Your task to perform on an android device: View the shopping cart on bestbuy.com. Add dell alienware to the cart on bestbuy.com, then select checkout. Image 0: 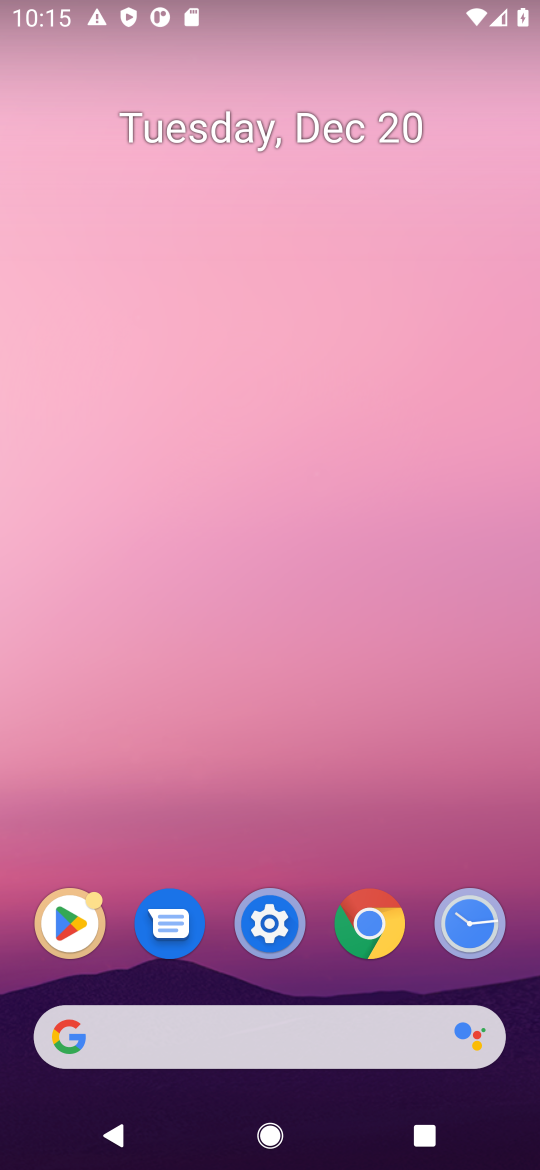
Step 0: click (348, 905)
Your task to perform on an android device: View the shopping cart on bestbuy.com. Add dell alienware to the cart on bestbuy.com, then select checkout. Image 1: 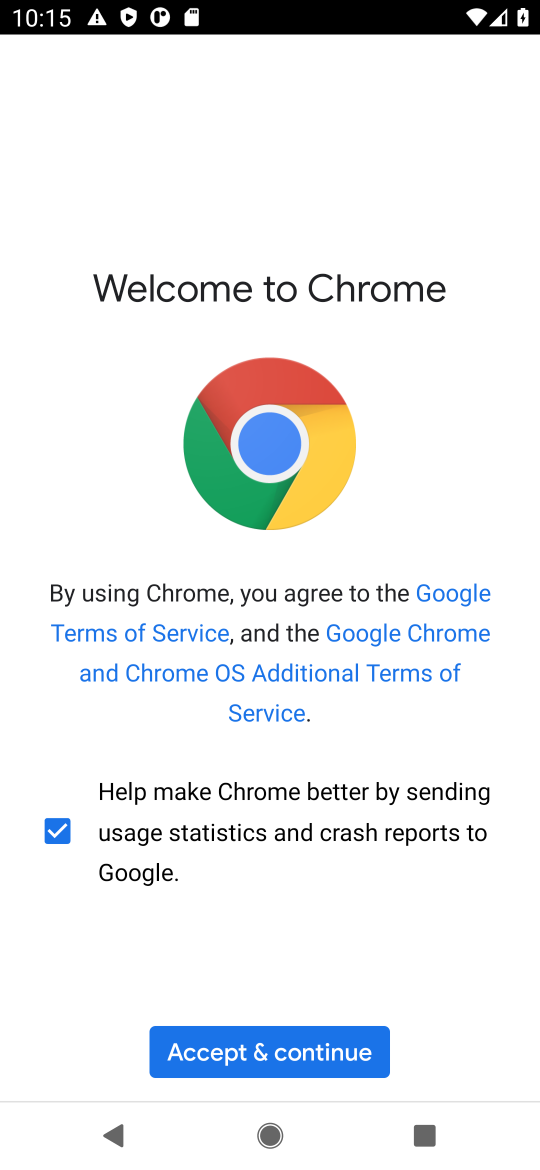
Step 1: click (173, 1060)
Your task to perform on an android device: View the shopping cart on bestbuy.com. Add dell alienware to the cart on bestbuy.com, then select checkout. Image 2: 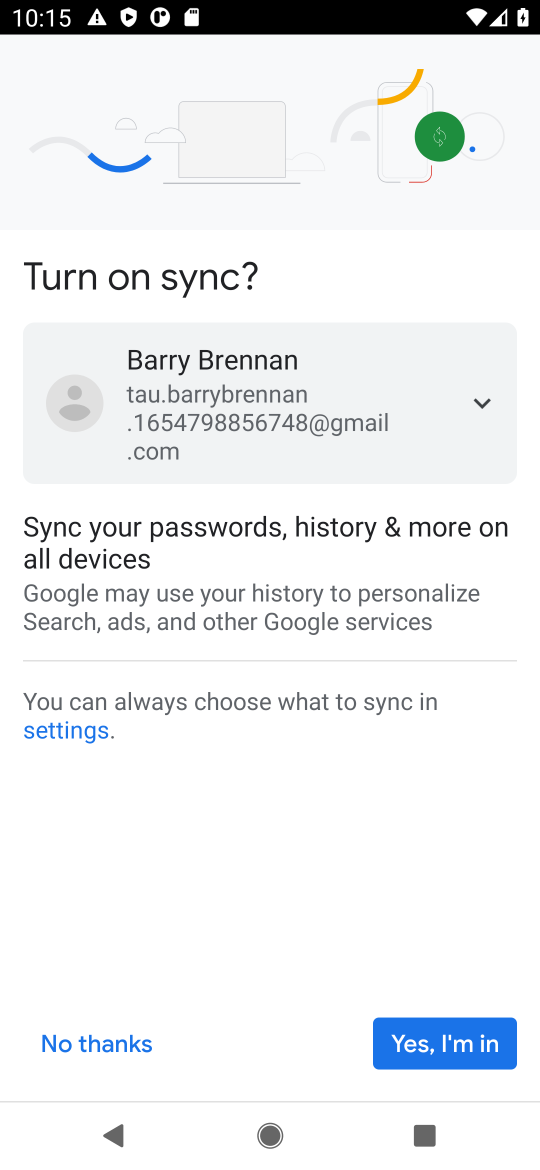
Step 2: click (390, 1056)
Your task to perform on an android device: View the shopping cart on bestbuy.com. Add dell alienware to the cart on bestbuy.com, then select checkout. Image 3: 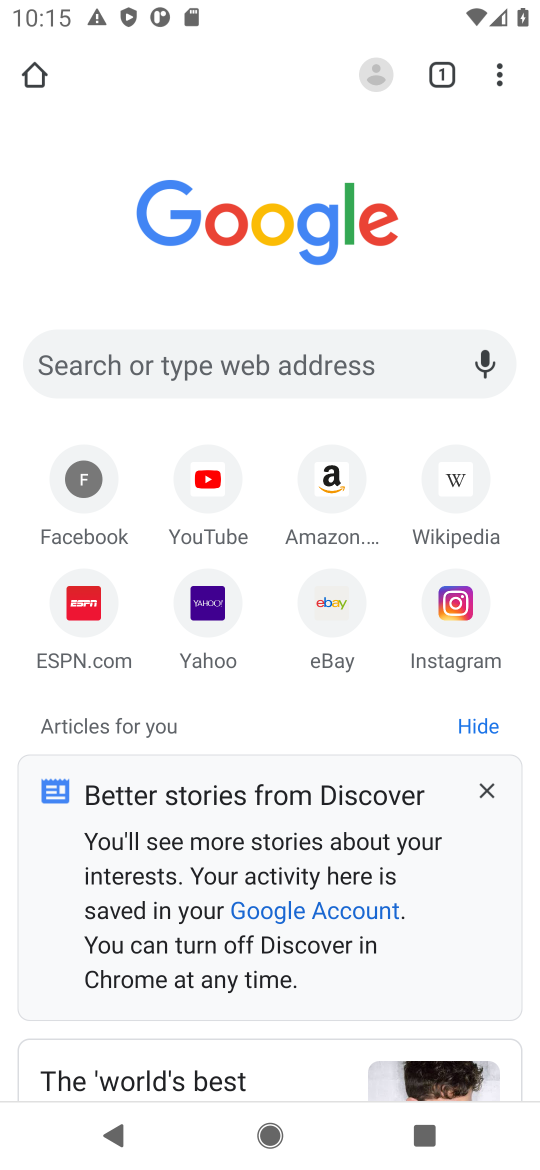
Step 3: click (248, 369)
Your task to perform on an android device: View the shopping cart on bestbuy.com. Add dell alienware to the cart on bestbuy.com, then select checkout. Image 4: 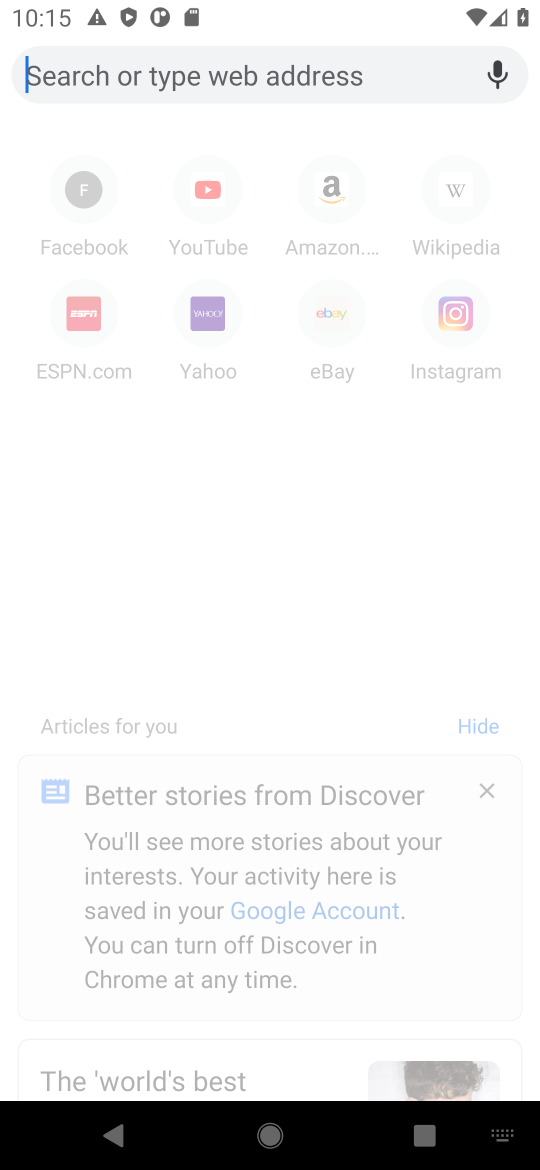
Step 4: type "bestbuy"
Your task to perform on an android device: View the shopping cart on bestbuy.com. Add dell alienware to the cart on bestbuy.com, then select checkout. Image 5: 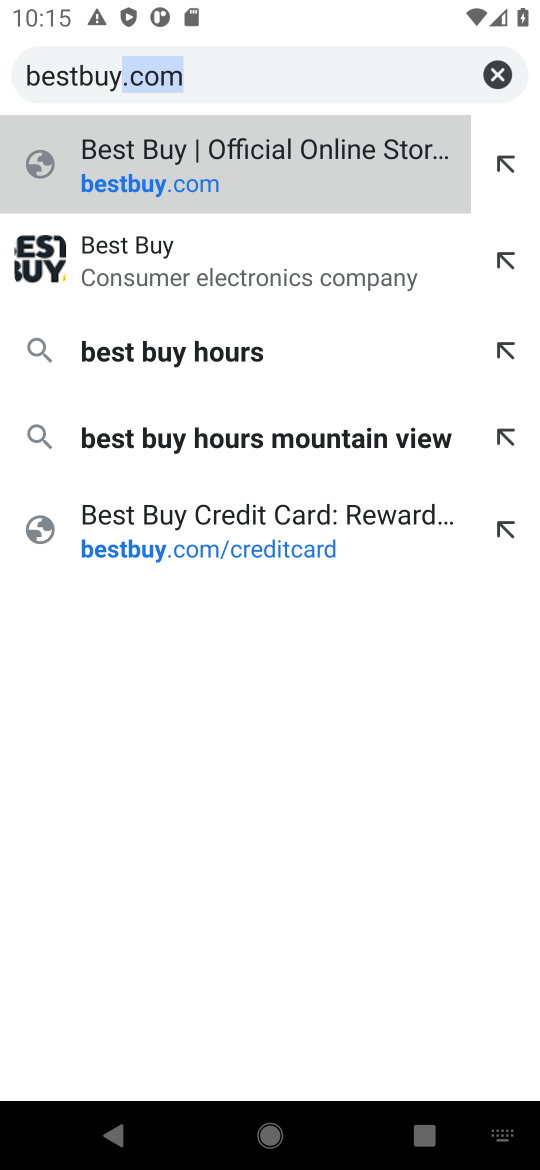
Step 5: click (213, 140)
Your task to perform on an android device: View the shopping cart on bestbuy.com. Add dell alienware to the cart on bestbuy.com, then select checkout. Image 6: 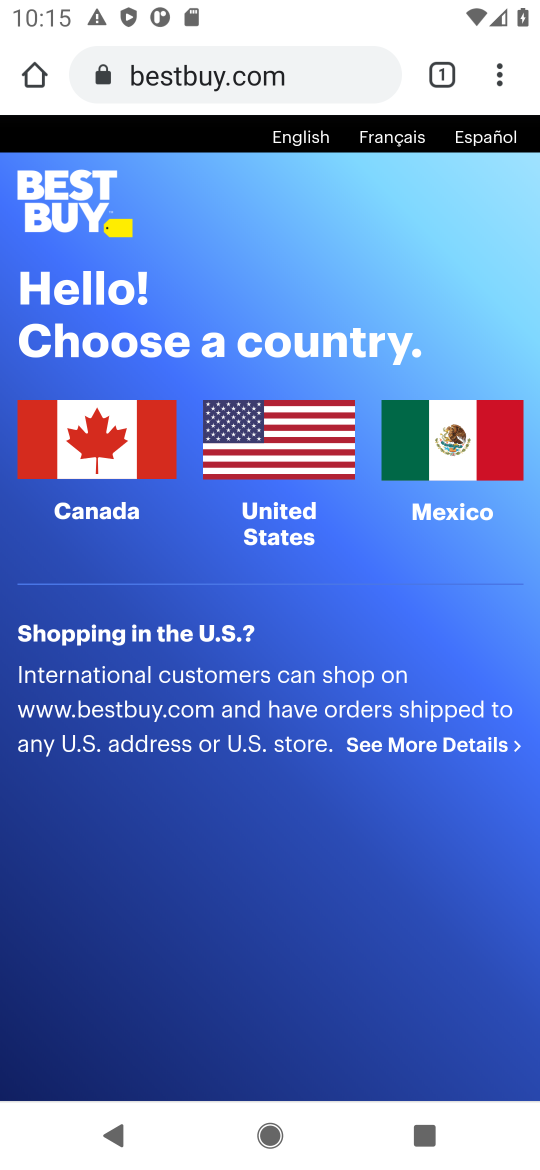
Step 6: click (114, 438)
Your task to perform on an android device: View the shopping cart on bestbuy.com. Add dell alienware to the cart on bestbuy.com, then select checkout. Image 7: 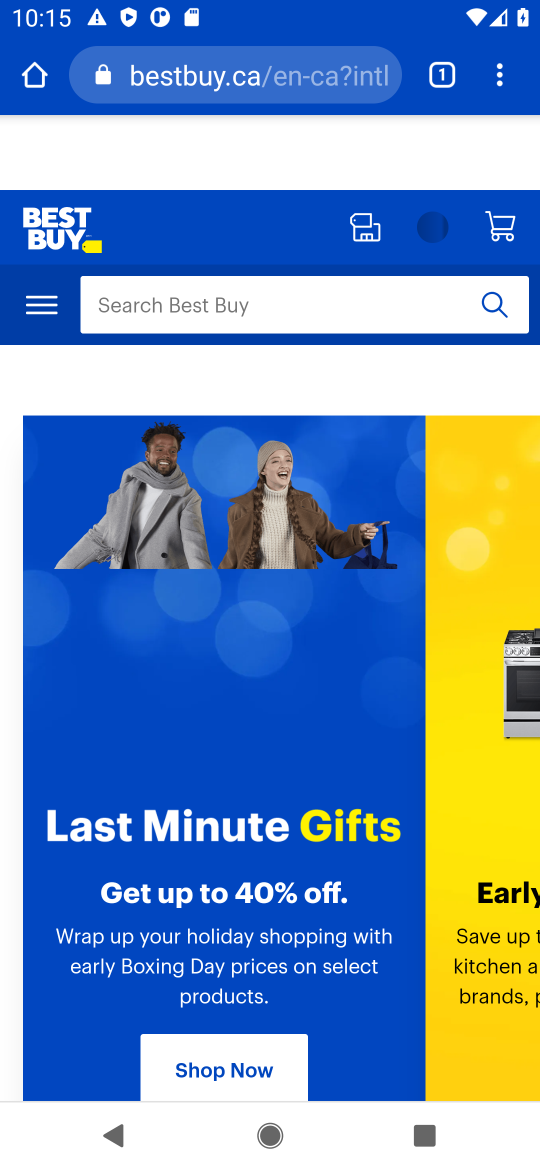
Step 7: click (278, 293)
Your task to perform on an android device: View the shopping cart on bestbuy.com. Add dell alienware to the cart on bestbuy.com, then select checkout. Image 8: 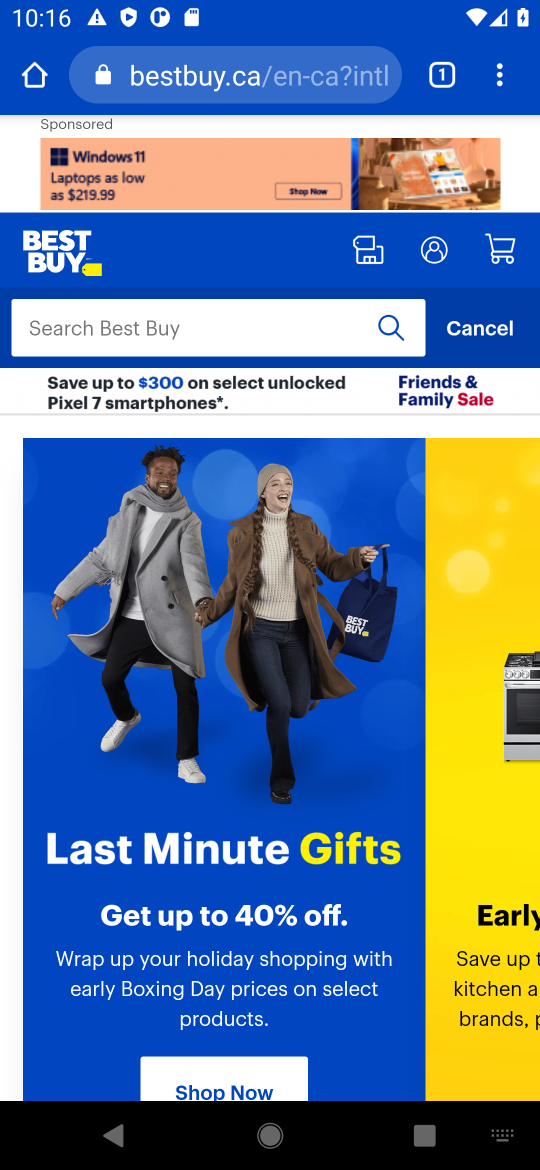
Step 8: task complete